Your task to perform on an android device: Open eBay Image 0: 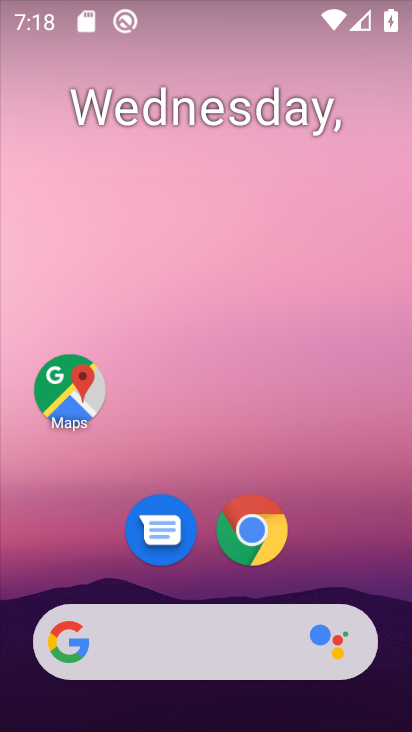
Step 0: drag from (385, 613) to (301, 17)
Your task to perform on an android device: Open eBay Image 1: 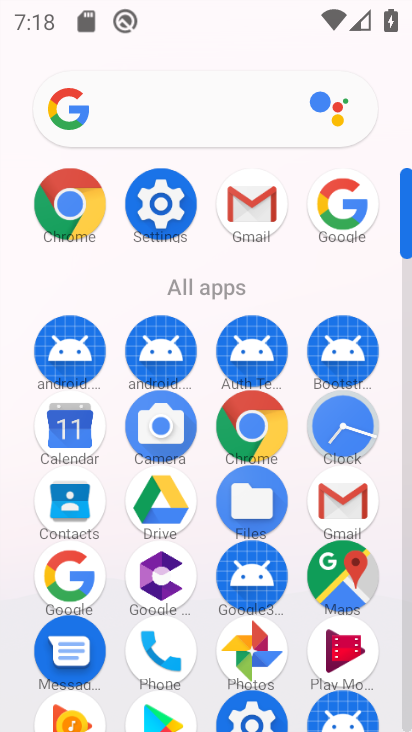
Step 1: click (69, 210)
Your task to perform on an android device: Open eBay Image 2: 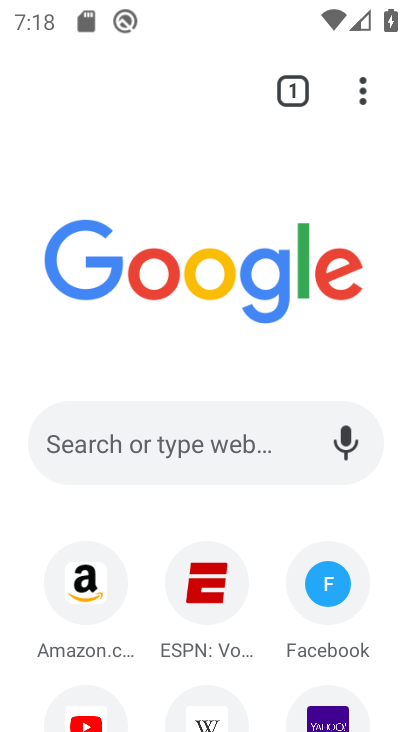
Step 2: click (202, 384)
Your task to perform on an android device: Open eBay Image 3: 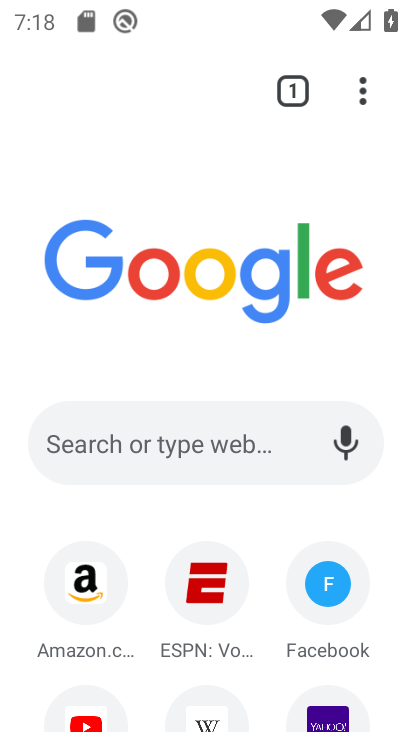
Step 3: click (198, 441)
Your task to perform on an android device: Open eBay Image 4: 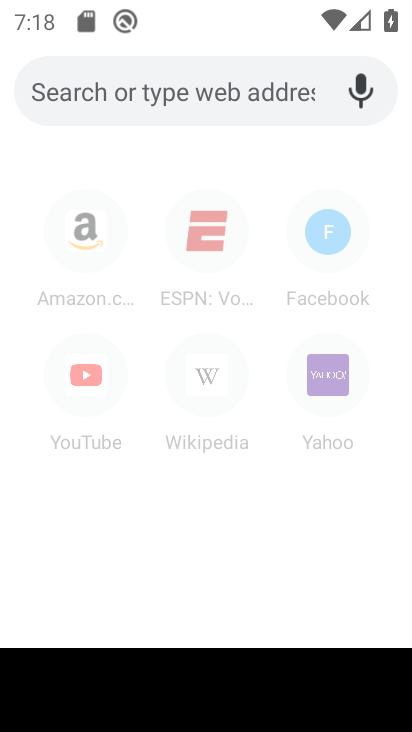
Step 4: type "ebay"
Your task to perform on an android device: Open eBay Image 5: 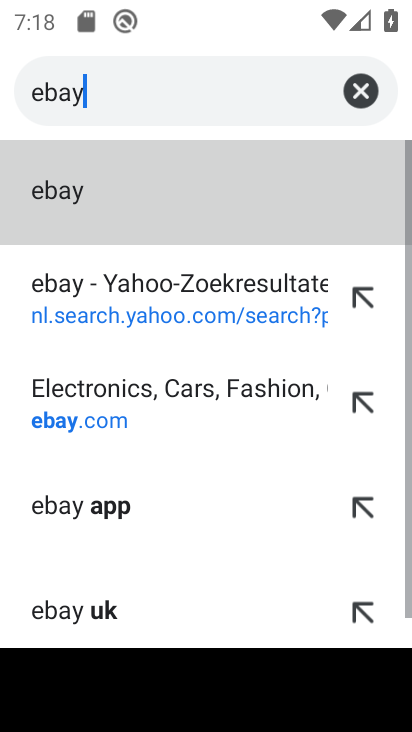
Step 5: click (154, 205)
Your task to perform on an android device: Open eBay Image 6: 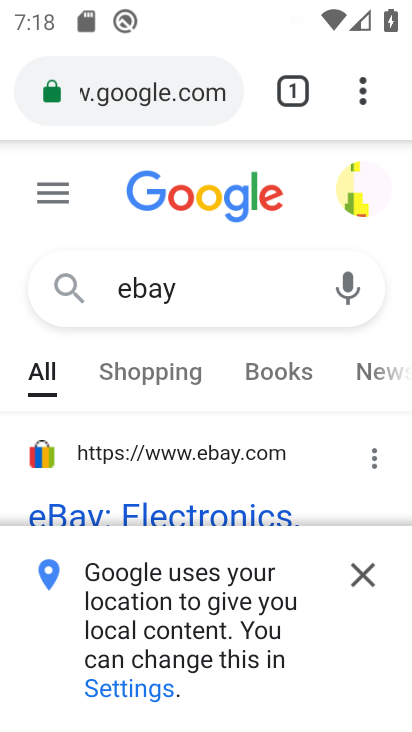
Step 6: click (260, 481)
Your task to perform on an android device: Open eBay Image 7: 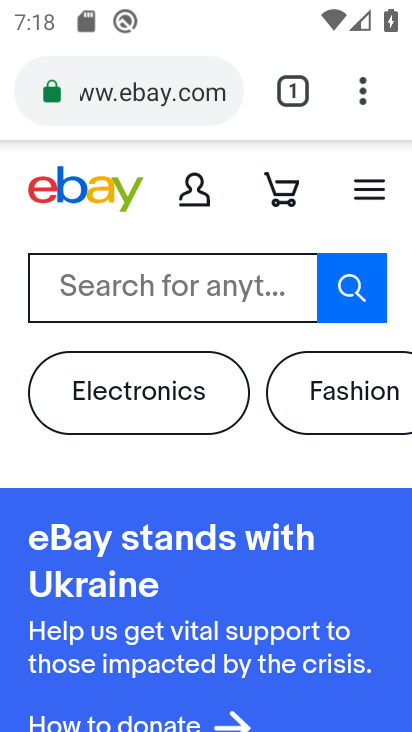
Step 7: task complete